Your task to perform on an android device: open app "Google Play Music" (install if not already installed) Image 0: 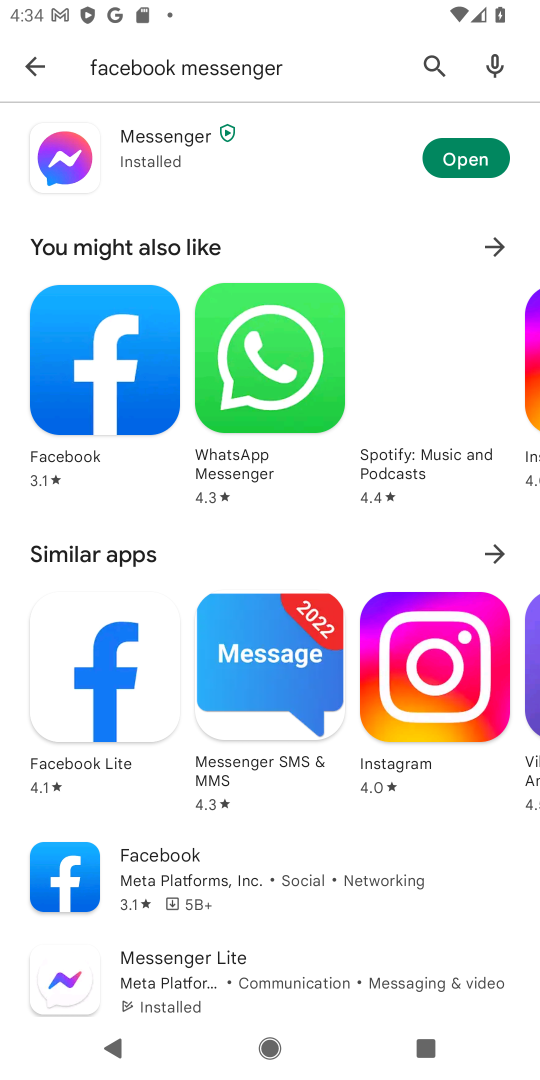
Step 0: press home button
Your task to perform on an android device: open app "Google Play Music" (install if not already installed) Image 1: 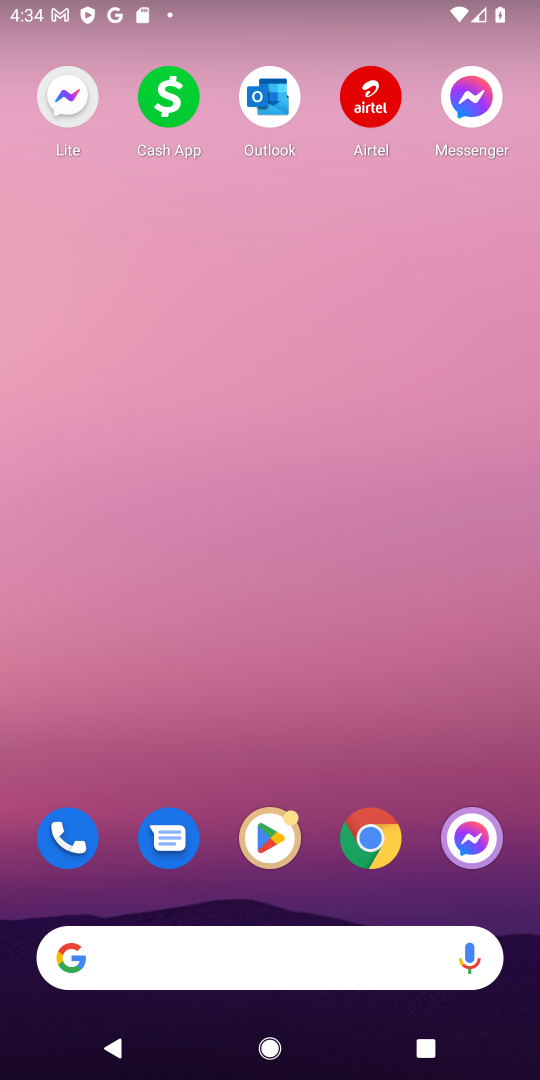
Step 1: drag from (175, 939) to (206, 249)
Your task to perform on an android device: open app "Google Play Music" (install if not already installed) Image 2: 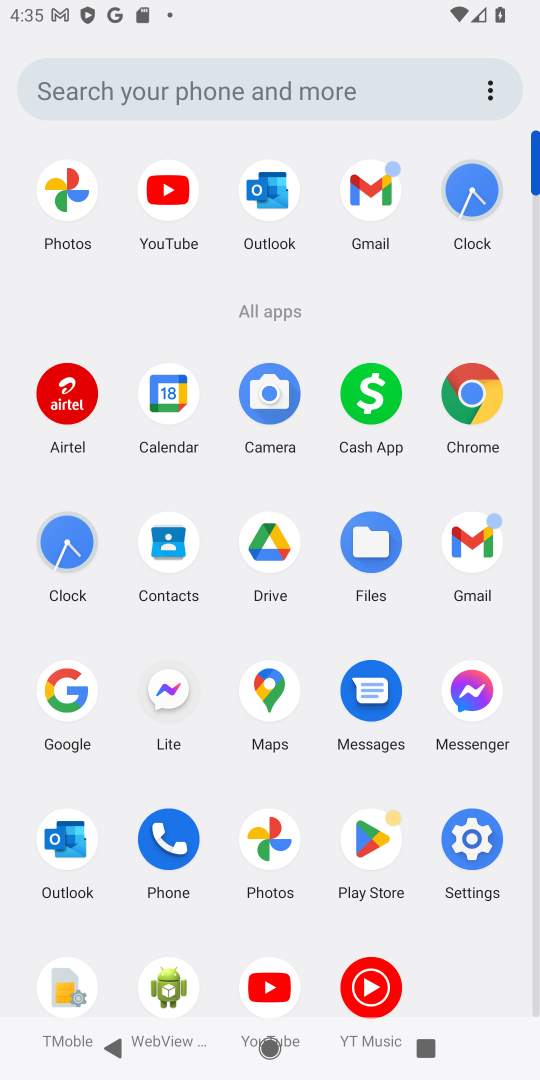
Step 2: click (375, 840)
Your task to perform on an android device: open app "Google Play Music" (install if not already installed) Image 3: 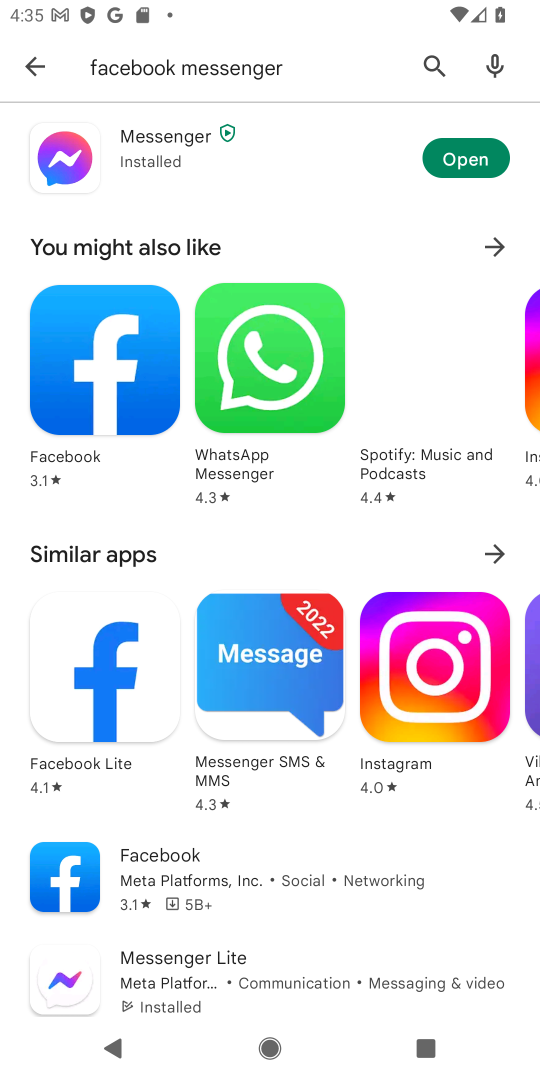
Step 3: press back button
Your task to perform on an android device: open app "Google Play Music" (install if not already installed) Image 4: 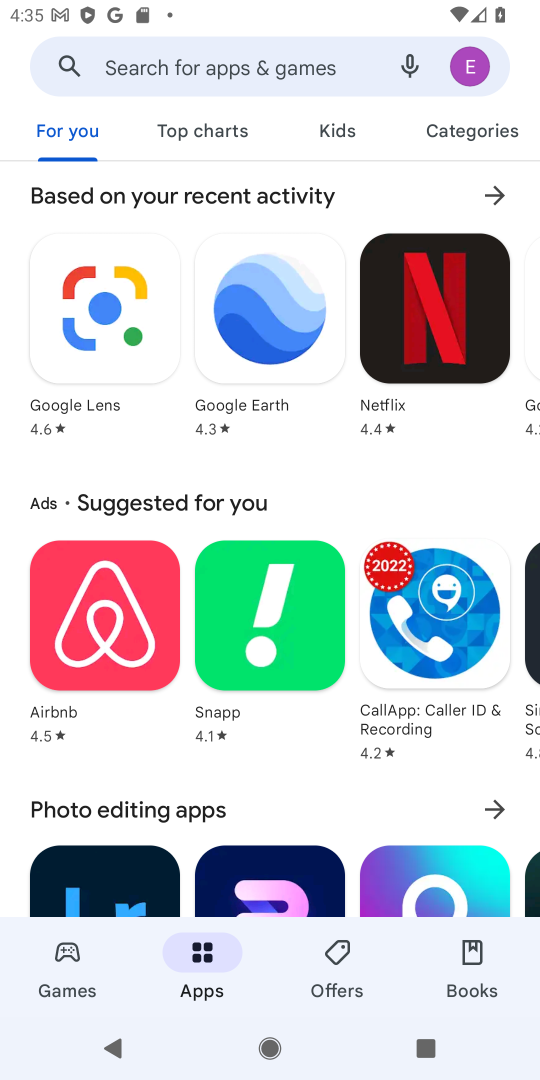
Step 4: click (253, 68)
Your task to perform on an android device: open app "Google Play Music" (install if not already installed) Image 5: 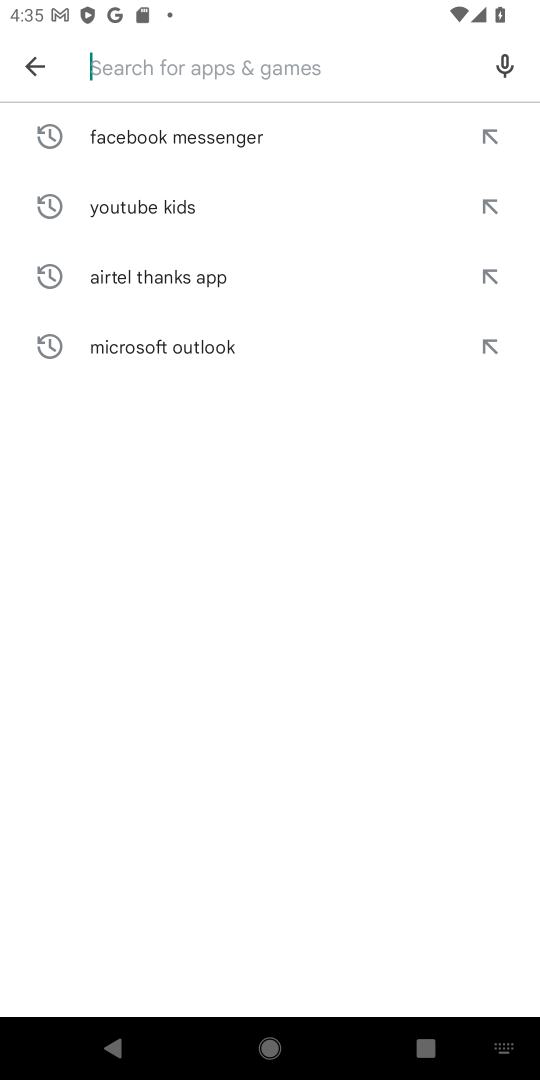
Step 5: type "Google Play Music"
Your task to perform on an android device: open app "Google Play Music" (install if not already installed) Image 6: 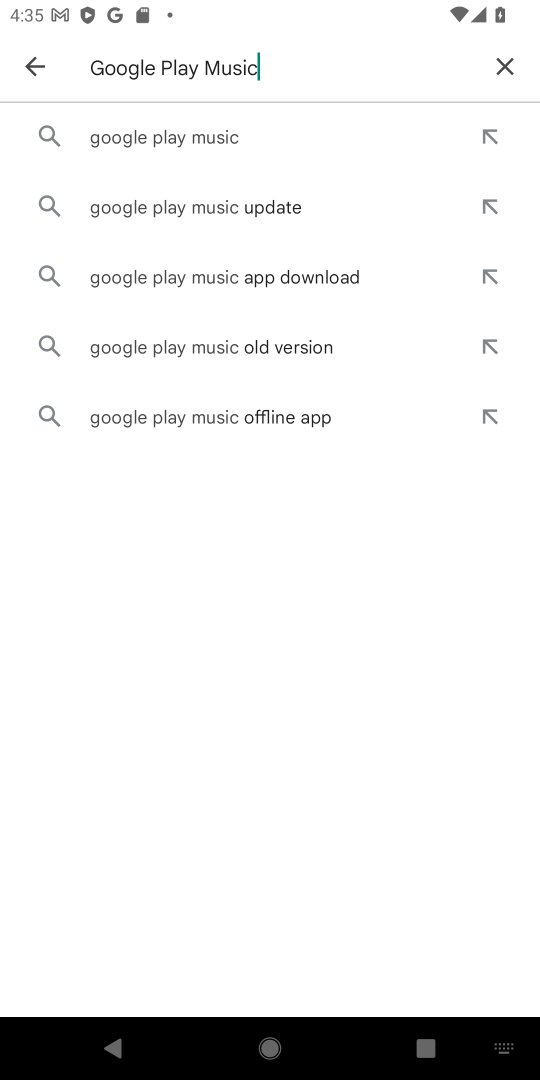
Step 6: click (162, 131)
Your task to perform on an android device: open app "Google Play Music" (install if not already installed) Image 7: 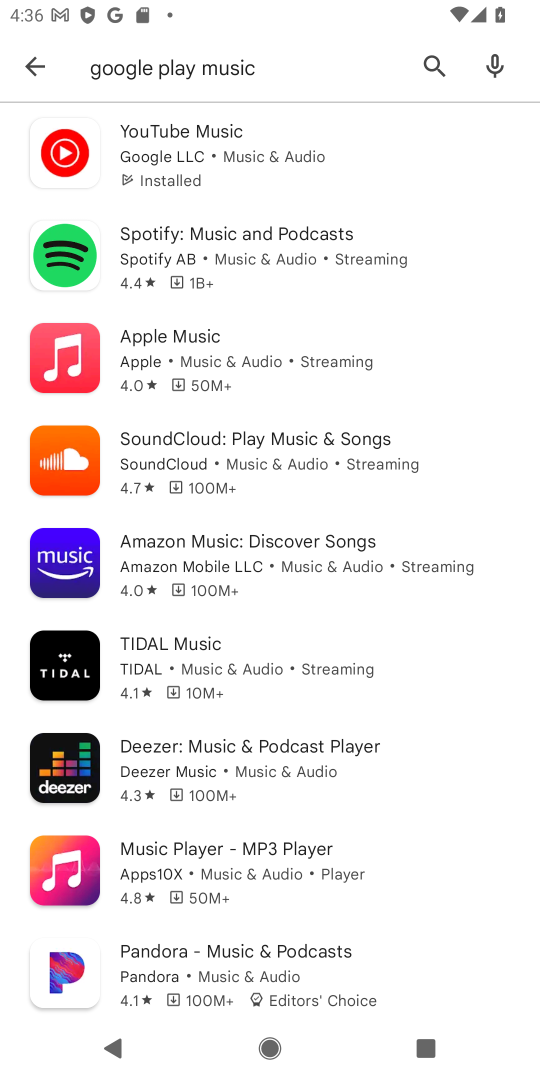
Step 7: click (162, 132)
Your task to perform on an android device: open app "Google Play Music" (install if not already installed) Image 8: 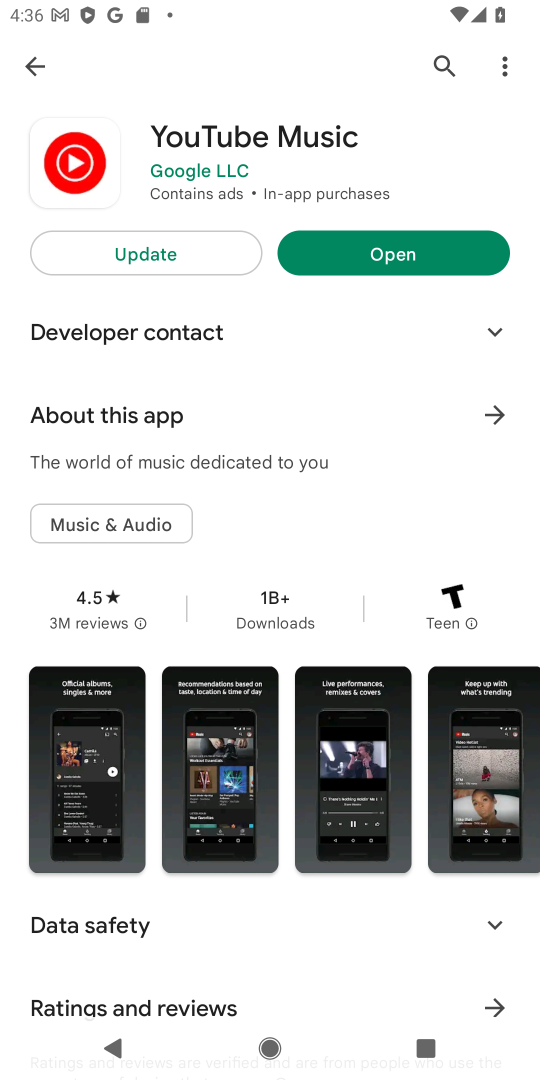
Step 8: click (340, 252)
Your task to perform on an android device: open app "Google Play Music" (install if not already installed) Image 9: 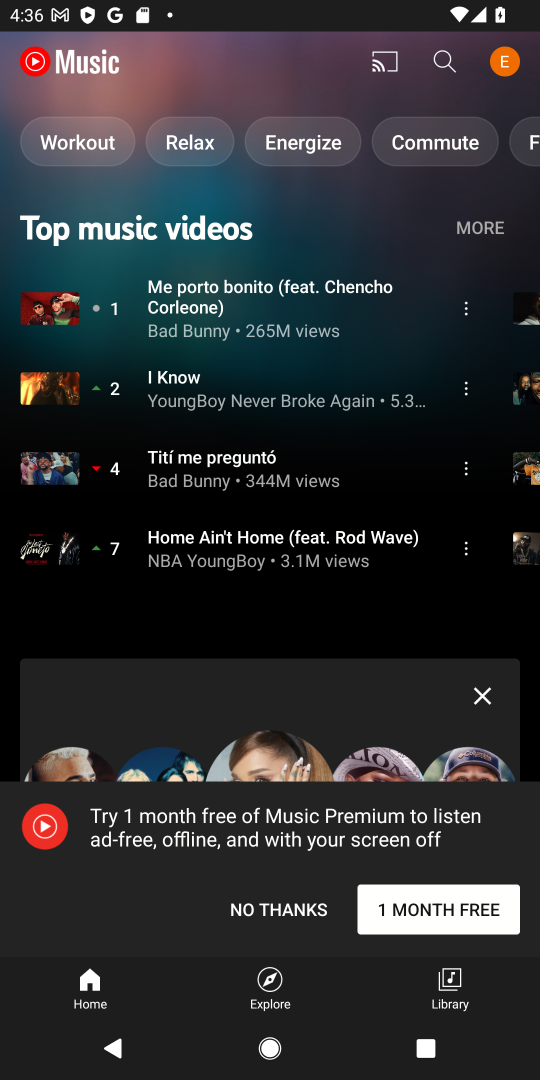
Step 9: task complete